Your task to perform on an android device: turn off airplane mode Image 0: 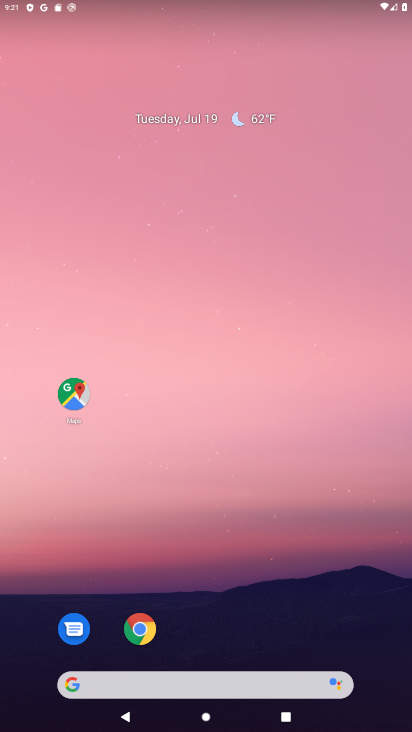
Step 0: drag from (260, 639) to (314, 82)
Your task to perform on an android device: turn off airplane mode Image 1: 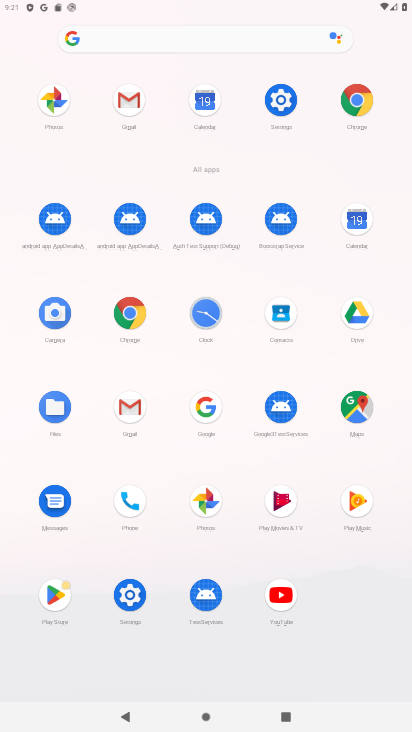
Step 1: click (287, 94)
Your task to perform on an android device: turn off airplane mode Image 2: 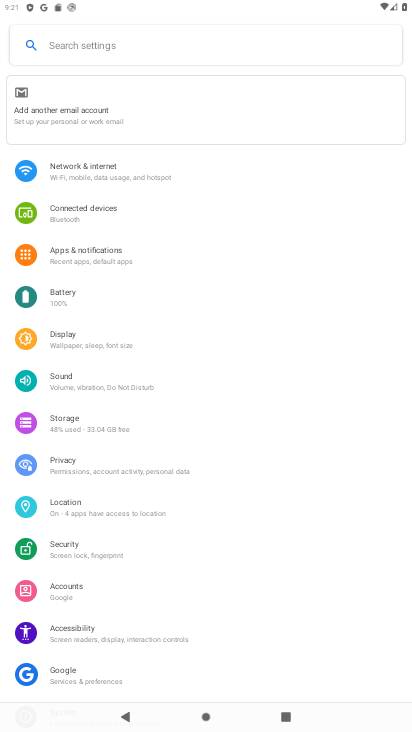
Step 2: click (156, 174)
Your task to perform on an android device: turn off airplane mode Image 3: 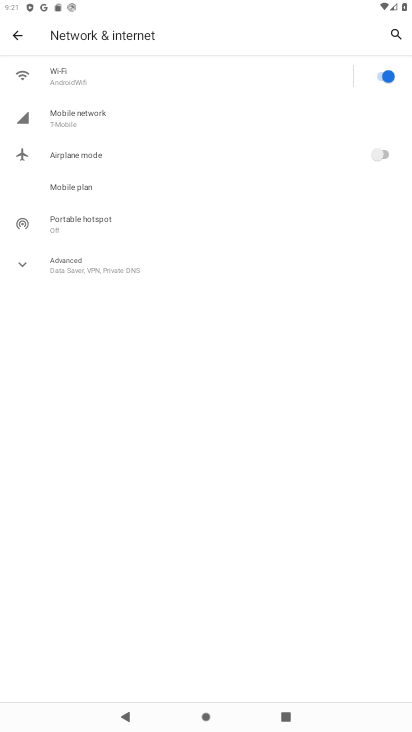
Step 3: task complete